Your task to perform on an android device: Open Yahoo.com Image 0: 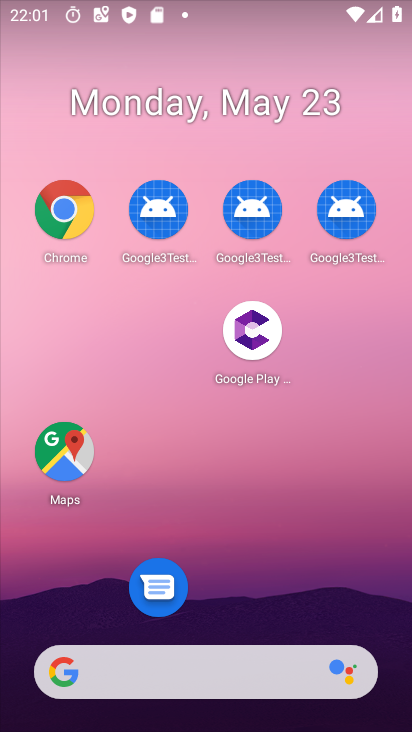
Step 0: click (67, 206)
Your task to perform on an android device: Open Yahoo.com Image 1: 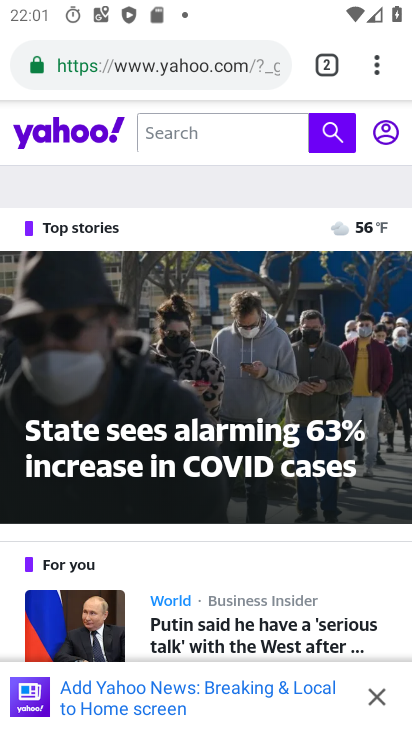
Step 1: task complete